Your task to perform on an android device: allow notifications from all sites in the chrome app Image 0: 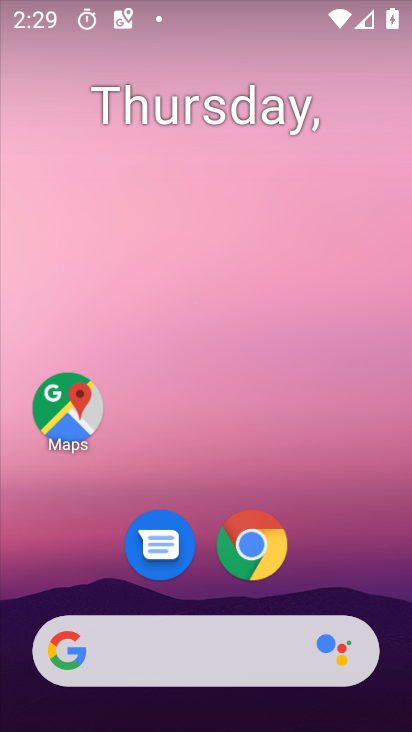
Step 0: click (259, 538)
Your task to perform on an android device: allow notifications from all sites in the chrome app Image 1: 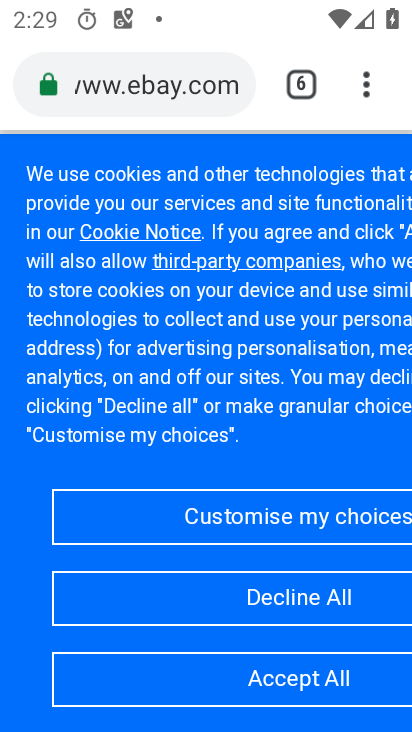
Step 1: click (367, 93)
Your task to perform on an android device: allow notifications from all sites in the chrome app Image 2: 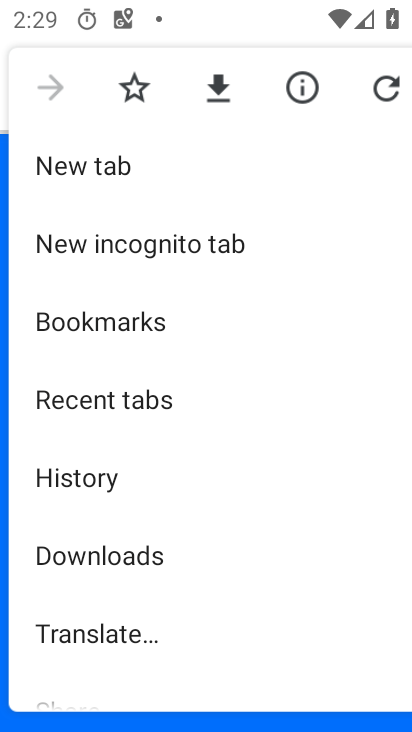
Step 2: drag from (106, 637) to (174, 159)
Your task to perform on an android device: allow notifications from all sites in the chrome app Image 3: 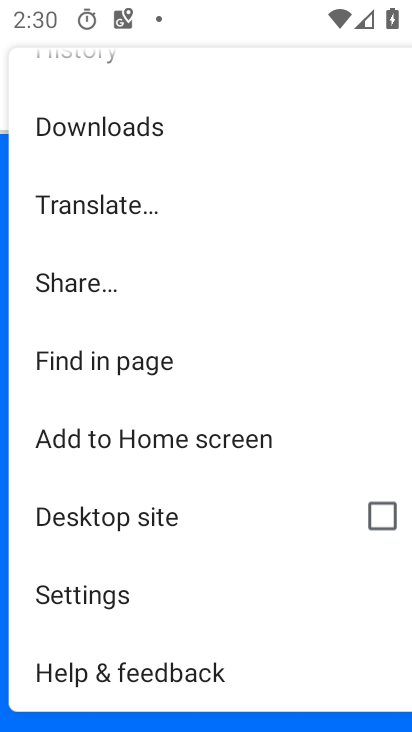
Step 3: click (95, 595)
Your task to perform on an android device: allow notifications from all sites in the chrome app Image 4: 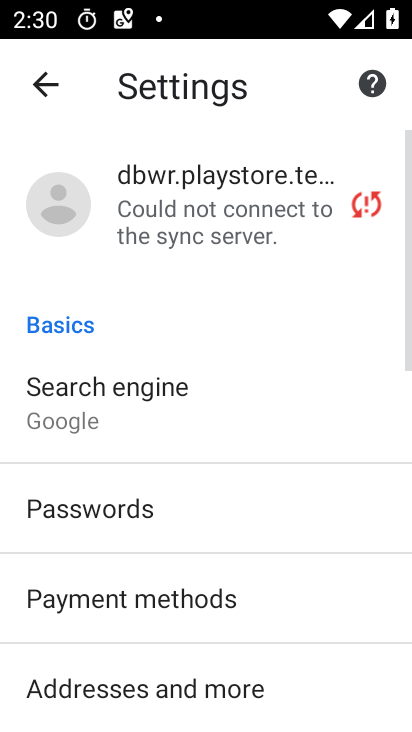
Step 4: drag from (153, 687) to (153, 325)
Your task to perform on an android device: allow notifications from all sites in the chrome app Image 5: 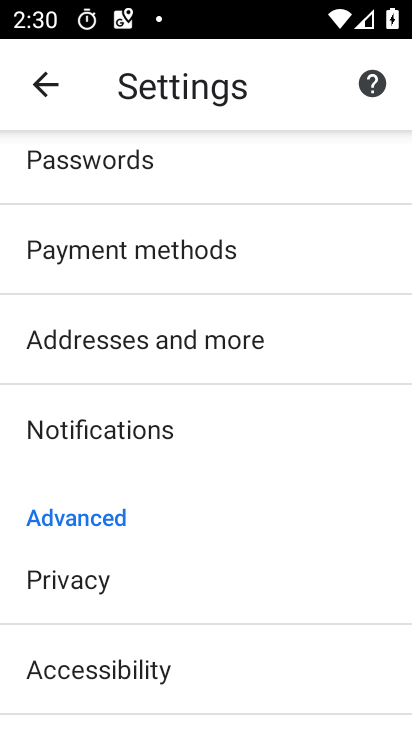
Step 5: drag from (94, 645) to (96, 288)
Your task to perform on an android device: allow notifications from all sites in the chrome app Image 6: 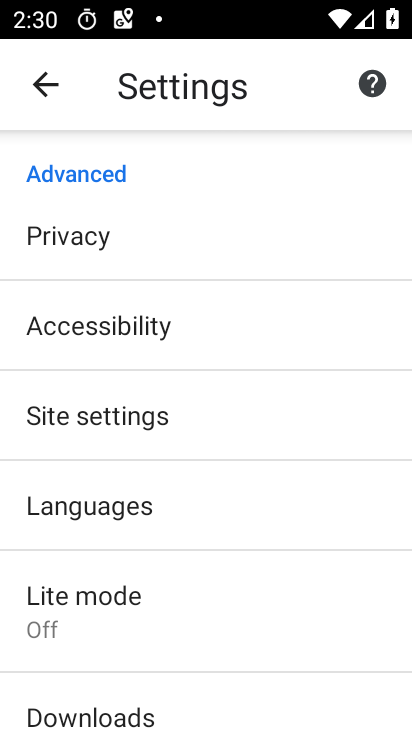
Step 6: click (113, 416)
Your task to perform on an android device: allow notifications from all sites in the chrome app Image 7: 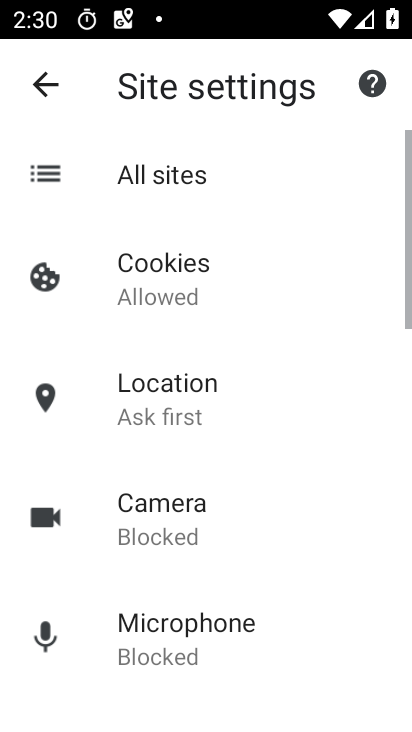
Step 7: drag from (176, 651) to (180, 293)
Your task to perform on an android device: allow notifications from all sites in the chrome app Image 8: 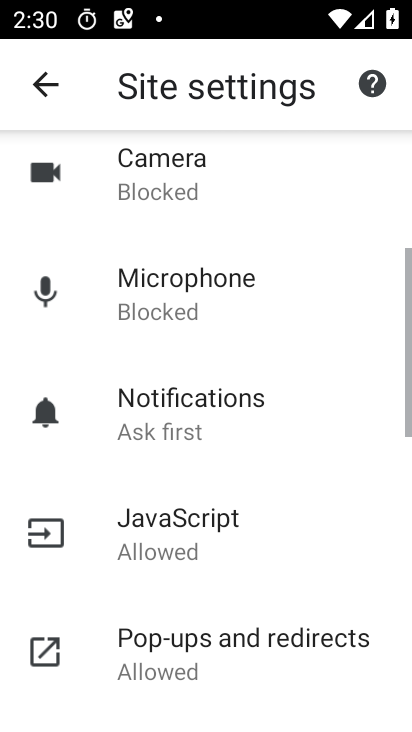
Step 8: click (178, 402)
Your task to perform on an android device: allow notifications from all sites in the chrome app Image 9: 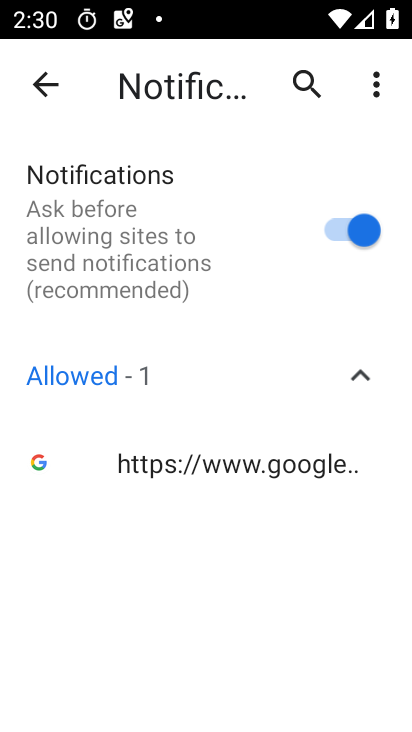
Step 9: task complete